Your task to perform on an android device: Search for Italian restaurants on Maps Image 0: 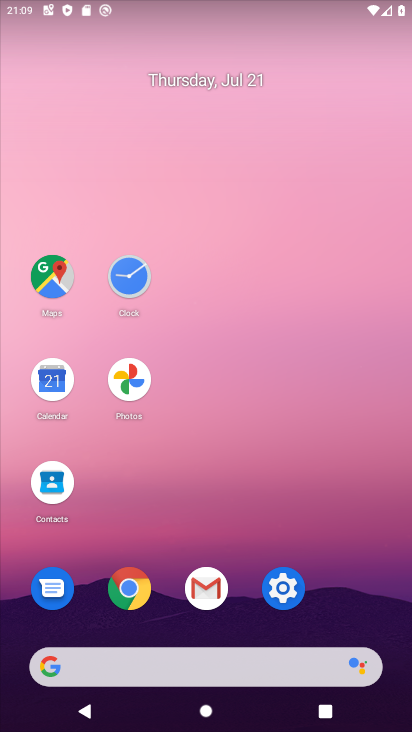
Step 0: click (49, 275)
Your task to perform on an android device: Search for Italian restaurants on Maps Image 1: 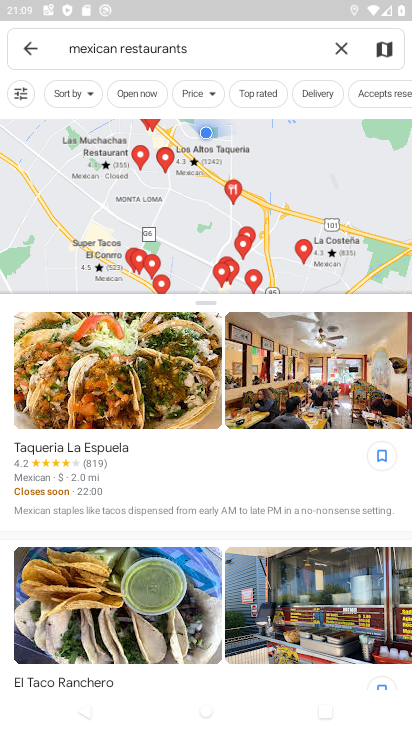
Step 1: click (340, 48)
Your task to perform on an android device: Search for Italian restaurants on Maps Image 2: 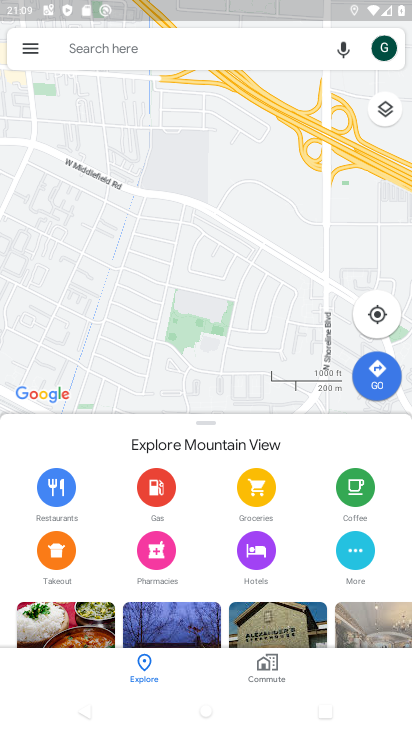
Step 2: click (173, 40)
Your task to perform on an android device: Search for Italian restaurants on Maps Image 3: 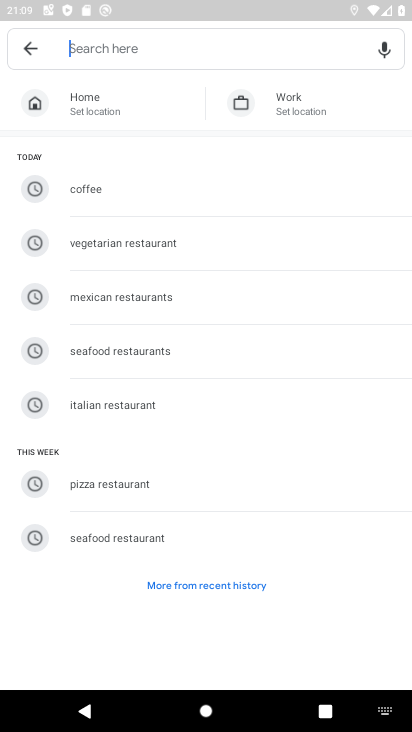
Step 3: click (107, 406)
Your task to perform on an android device: Search for Italian restaurants on Maps Image 4: 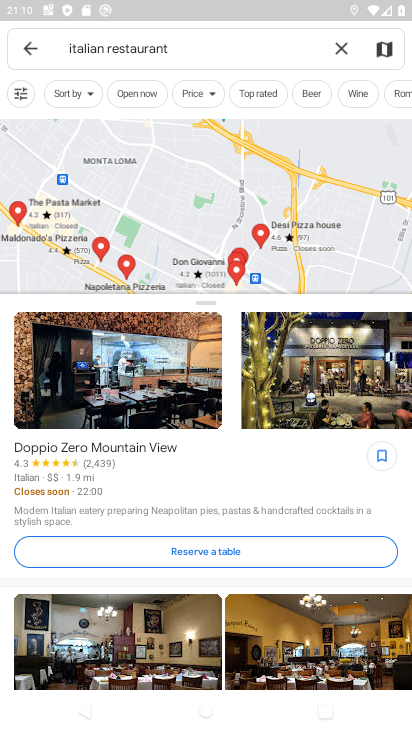
Step 4: task complete